Your task to perform on an android device: set an alarm Image 0: 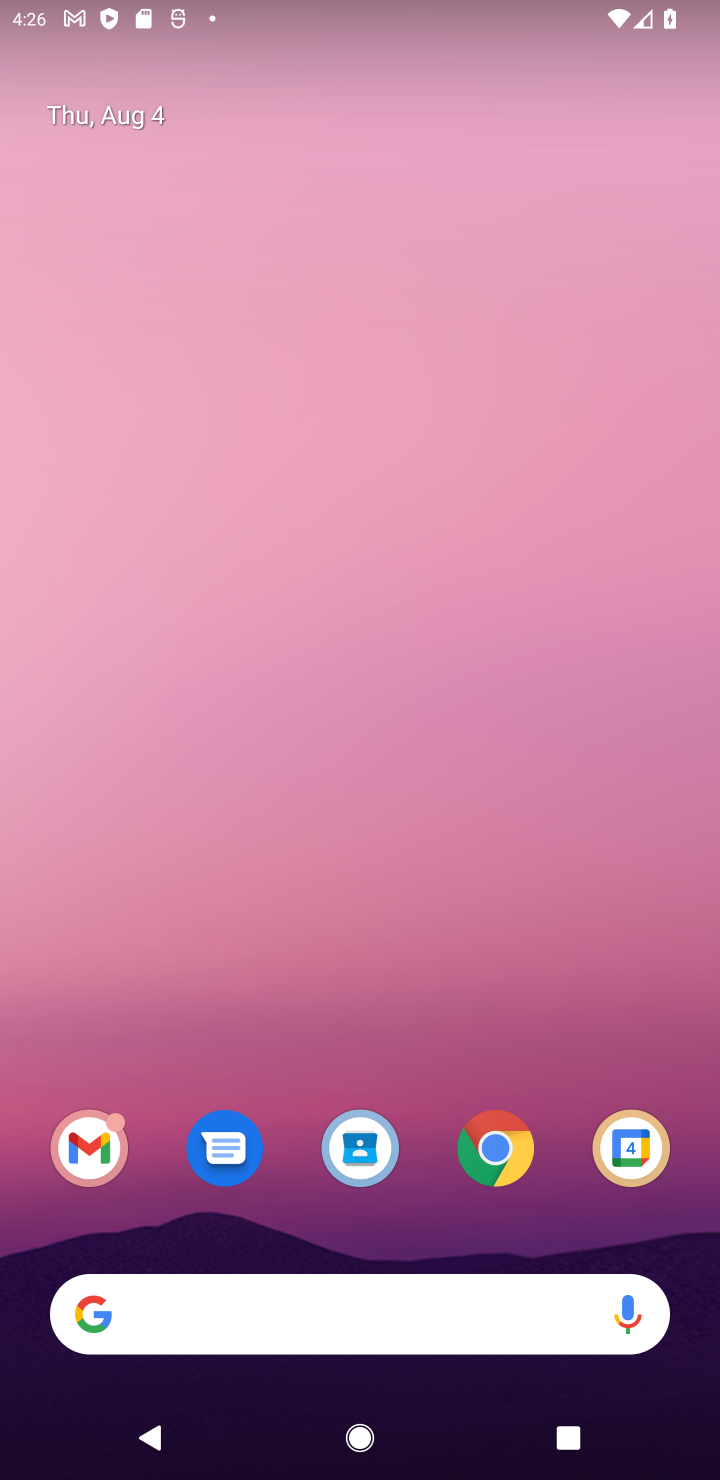
Step 0: drag from (557, 1219) to (495, 379)
Your task to perform on an android device: set an alarm Image 1: 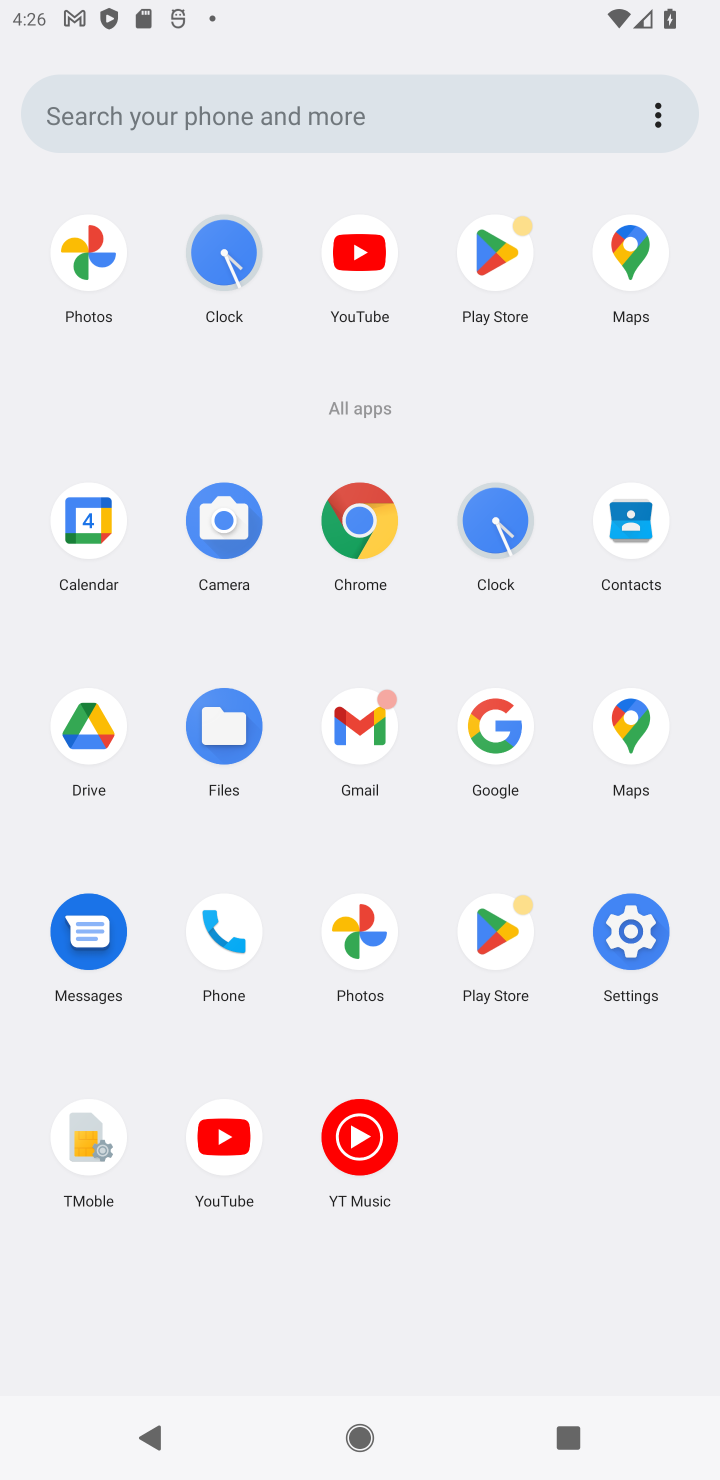
Step 1: click (488, 524)
Your task to perform on an android device: set an alarm Image 2: 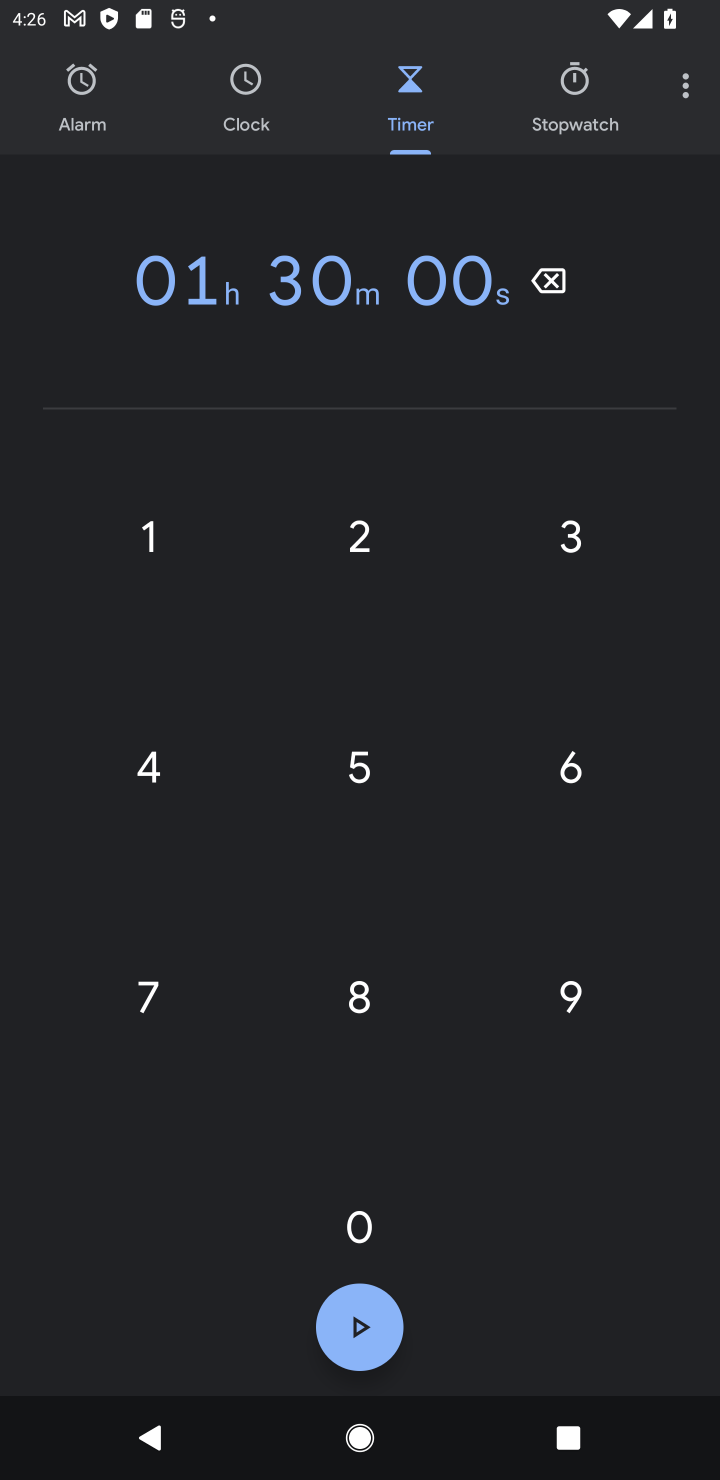
Step 2: click (64, 91)
Your task to perform on an android device: set an alarm Image 3: 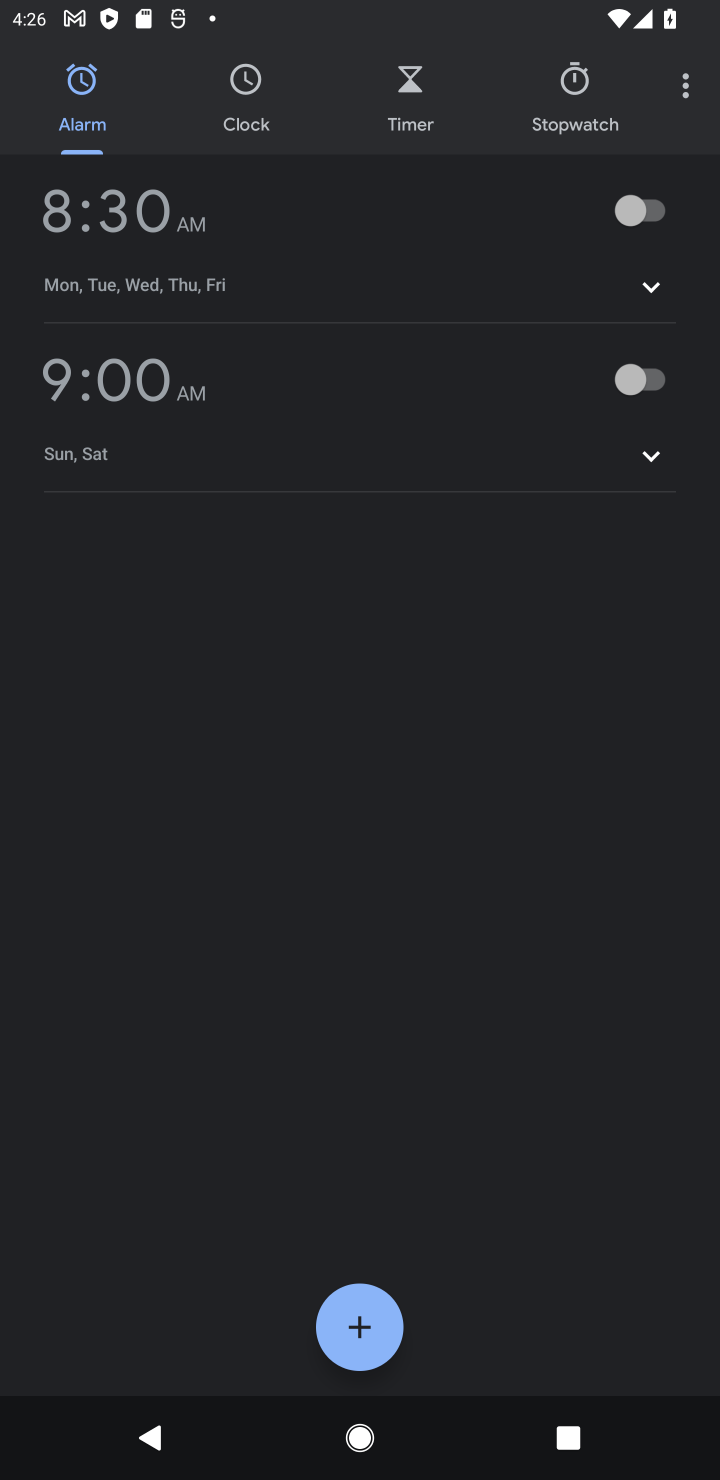
Step 3: click (140, 222)
Your task to perform on an android device: set an alarm Image 4: 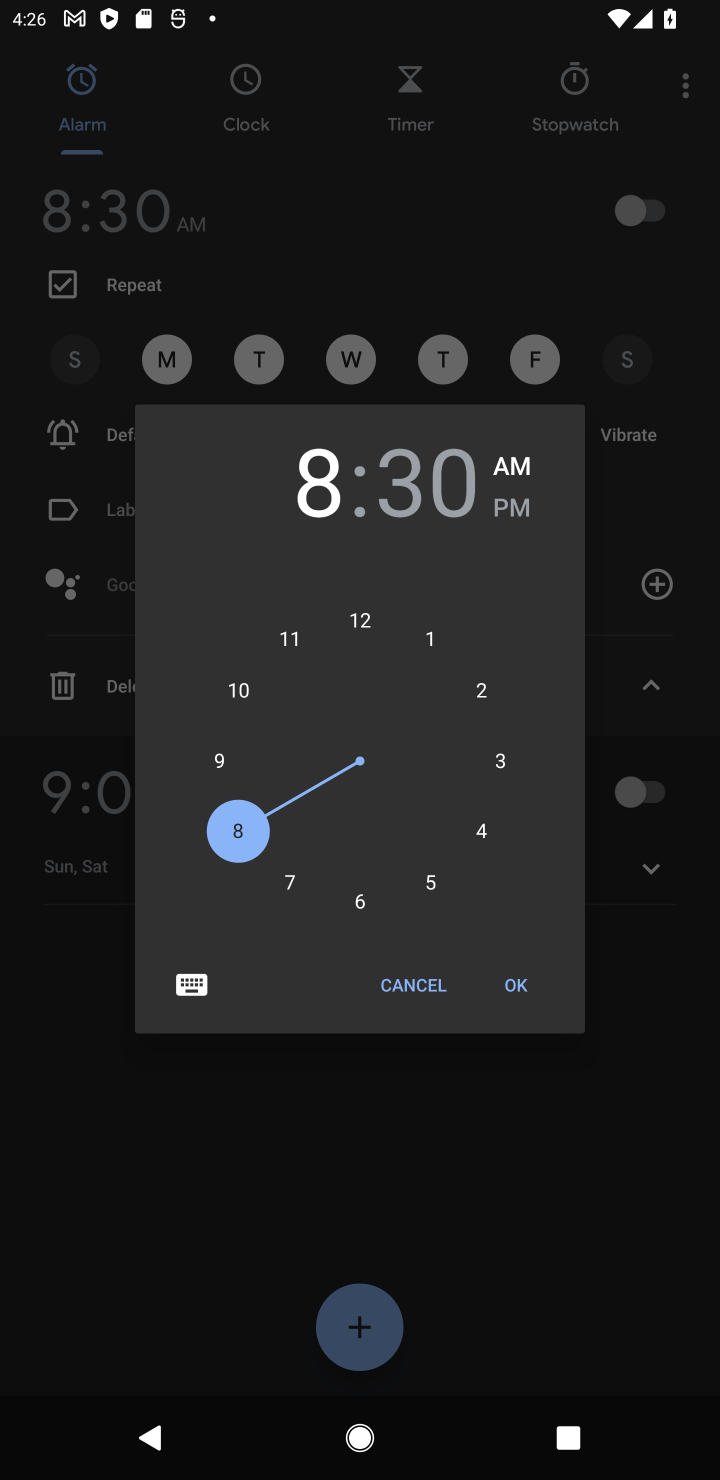
Step 4: click (362, 908)
Your task to perform on an android device: set an alarm Image 5: 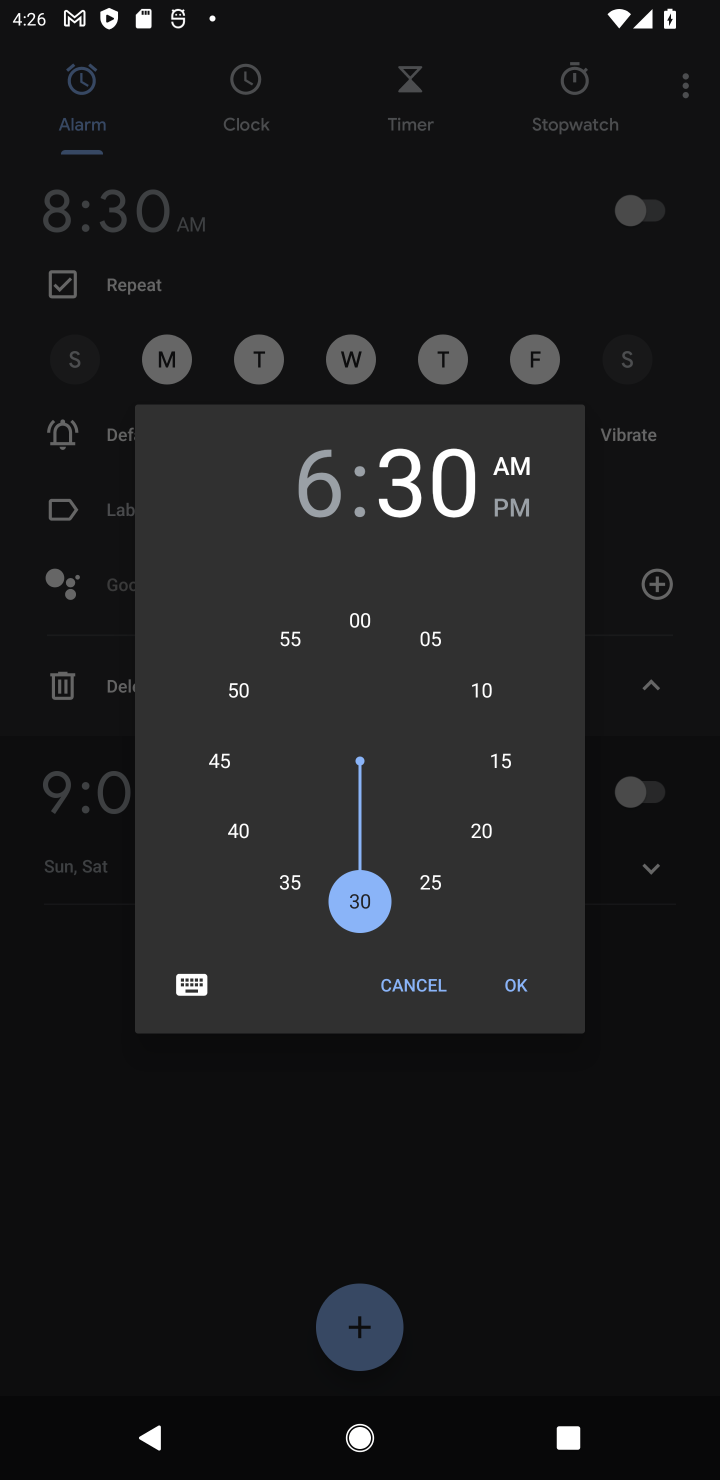
Step 5: click (363, 618)
Your task to perform on an android device: set an alarm Image 6: 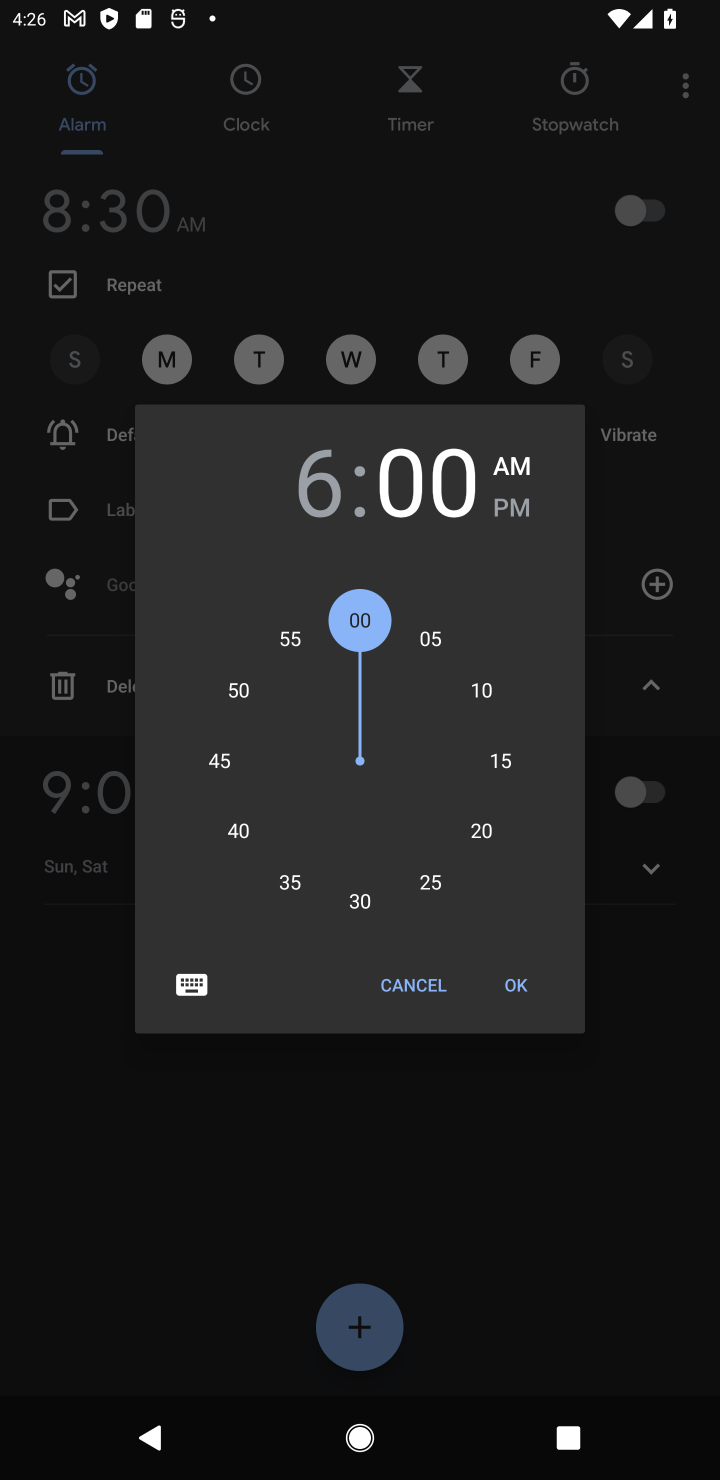
Step 6: click (514, 979)
Your task to perform on an android device: set an alarm Image 7: 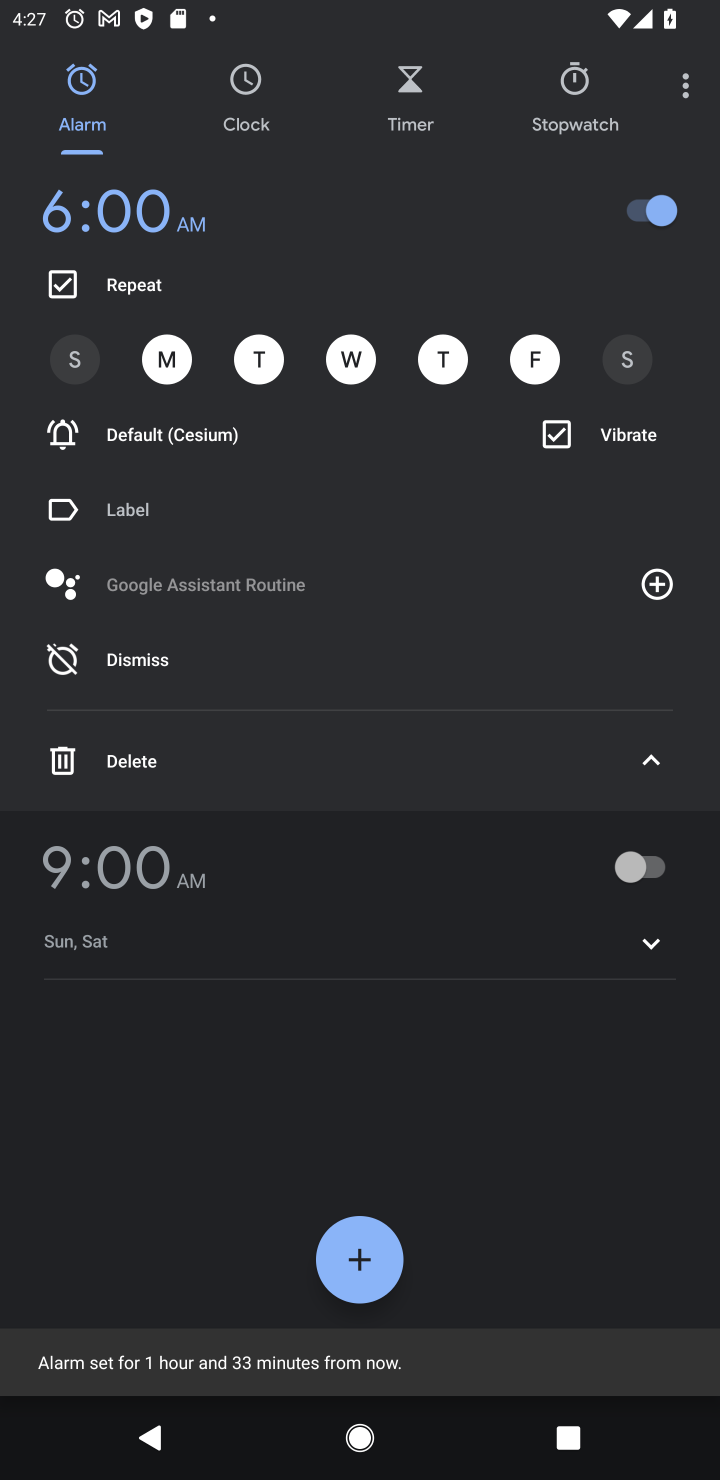
Step 7: click (627, 354)
Your task to perform on an android device: set an alarm Image 8: 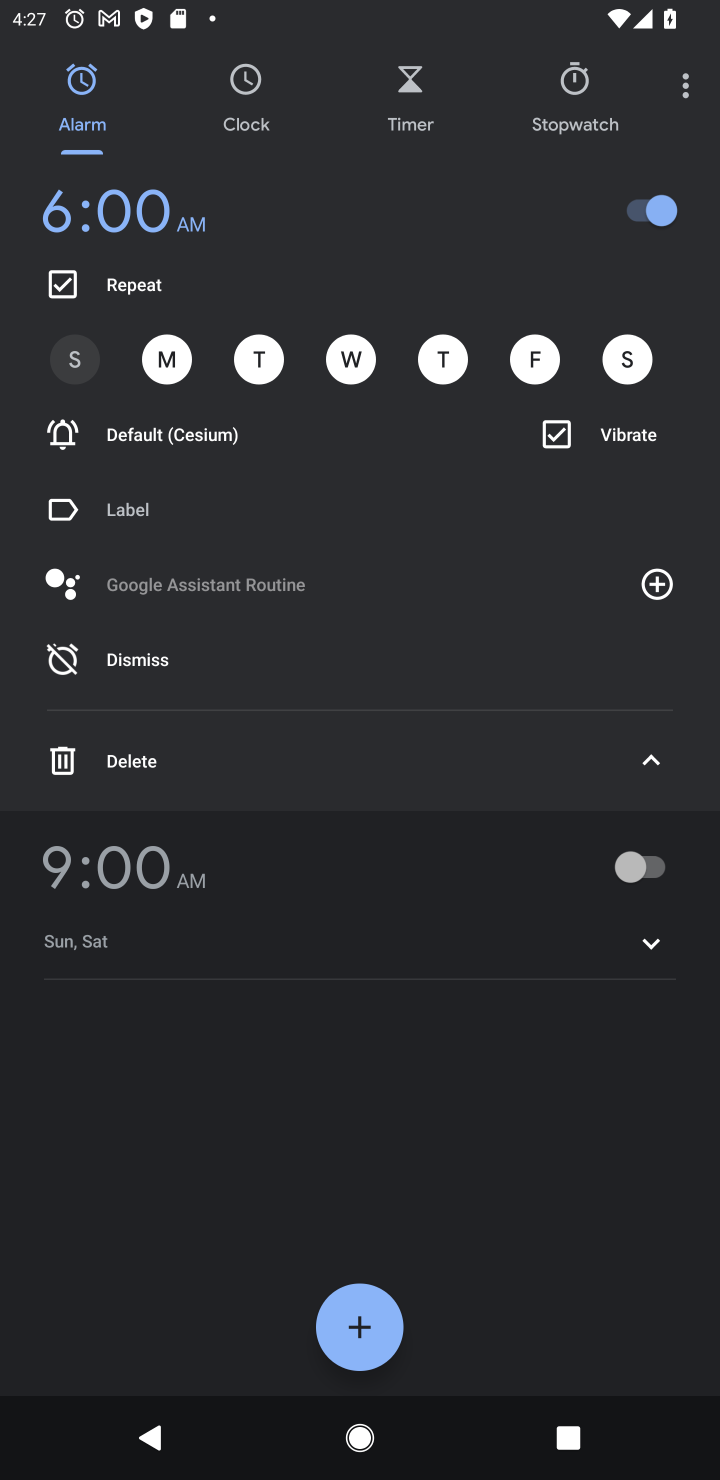
Step 8: click (649, 765)
Your task to perform on an android device: set an alarm Image 9: 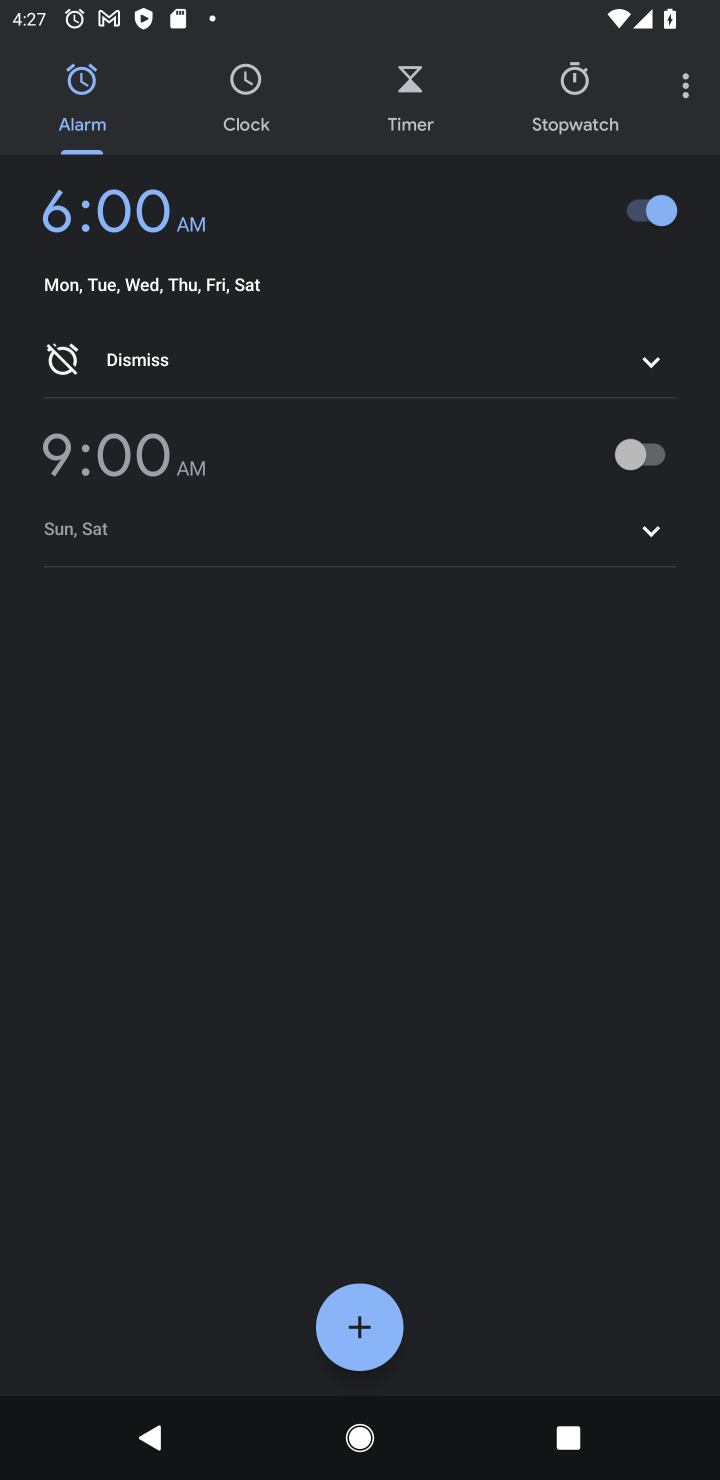
Step 9: task complete